Your task to perform on an android device: remove spam from my inbox in the gmail app Image 0: 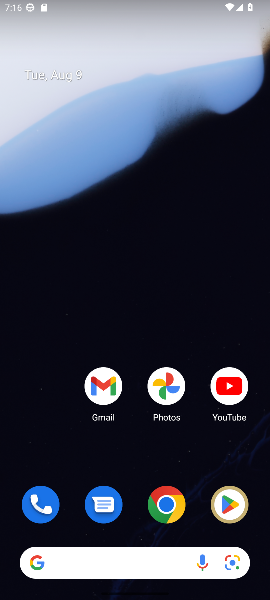
Step 0: drag from (149, 528) to (153, 213)
Your task to perform on an android device: remove spam from my inbox in the gmail app Image 1: 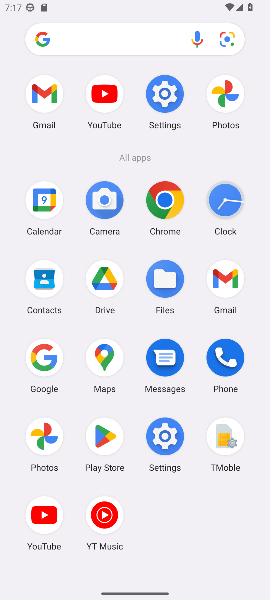
Step 1: click (43, 105)
Your task to perform on an android device: remove spam from my inbox in the gmail app Image 2: 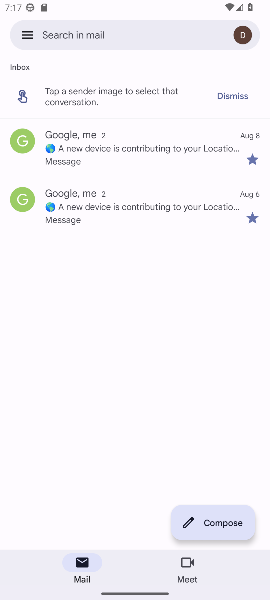
Step 2: click (28, 42)
Your task to perform on an android device: remove spam from my inbox in the gmail app Image 3: 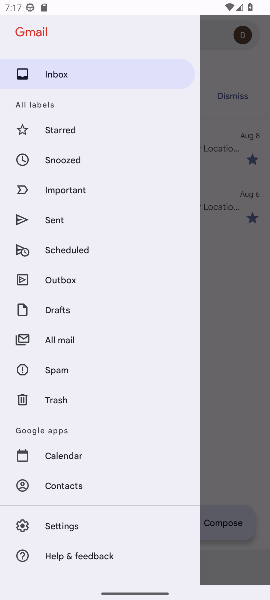
Step 3: click (41, 370)
Your task to perform on an android device: remove spam from my inbox in the gmail app Image 4: 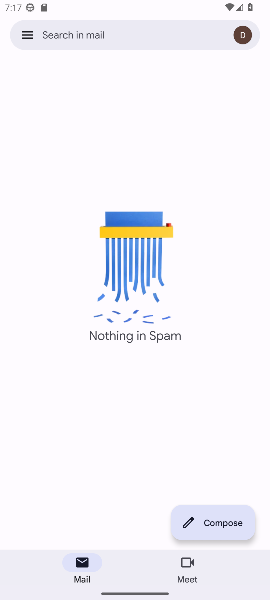
Step 4: task complete